Your task to perform on an android device: empty trash in google photos Image 0: 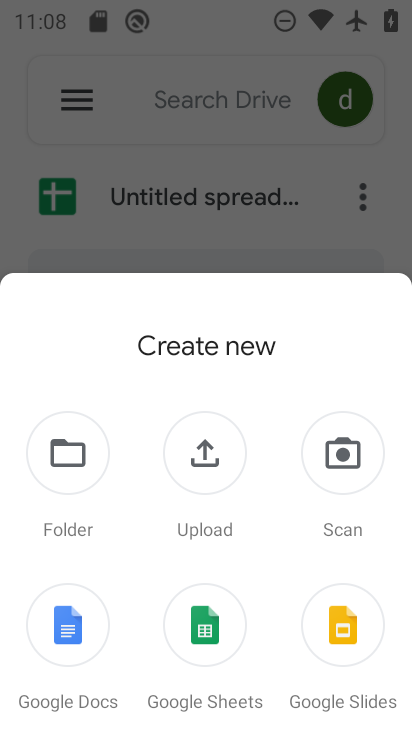
Step 0: press home button
Your task to perform on an android device: empty trash in google photos Image 1: 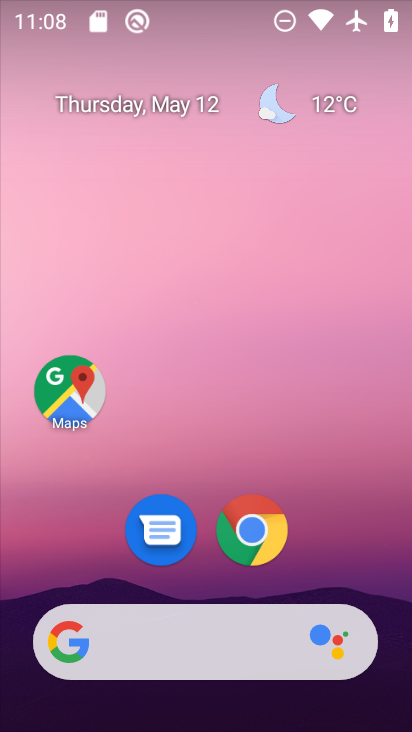
Step 1: drag from (204, 559) to (357, 165)
Your task to perform on an android device: empty trash in google photos Image 2: 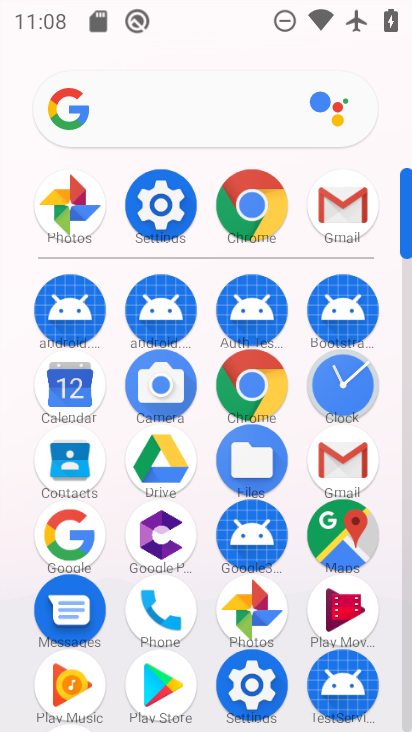
Step 2: click (254, 617)
Your task to perform on an android device: empty trash in google photos Image 3: 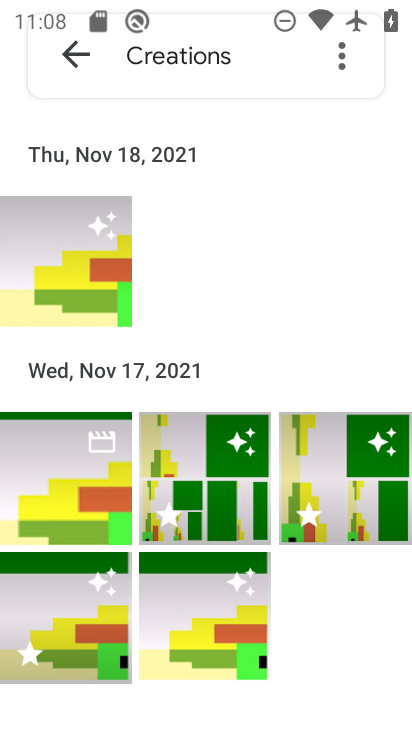
Step 3: click (75, 56)
Your task to perform on an android device: empty trash in google photos Image 4: 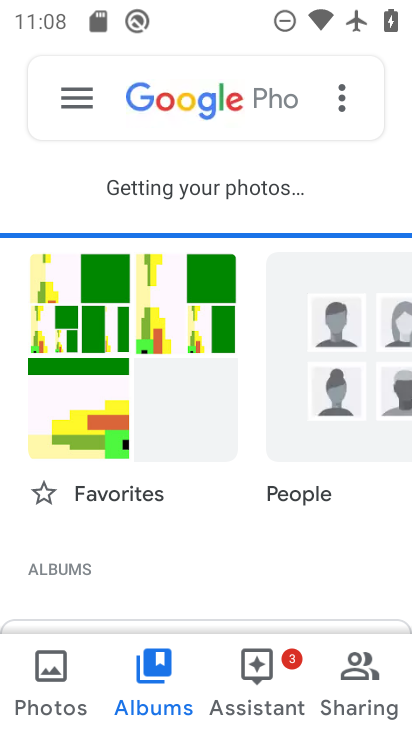
Step 4: click (88, 104)
Your task to perform on an android device: empty trash in google photos Image 5: 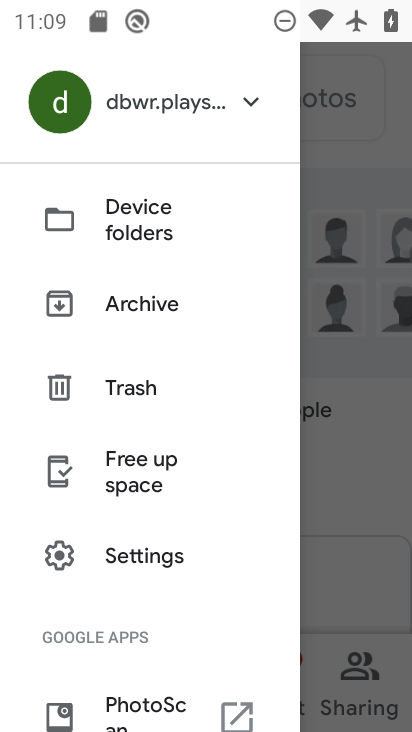
Step 5: click (134, 386)
Your task to perform on an android device: empty trash in google photos Image 6: 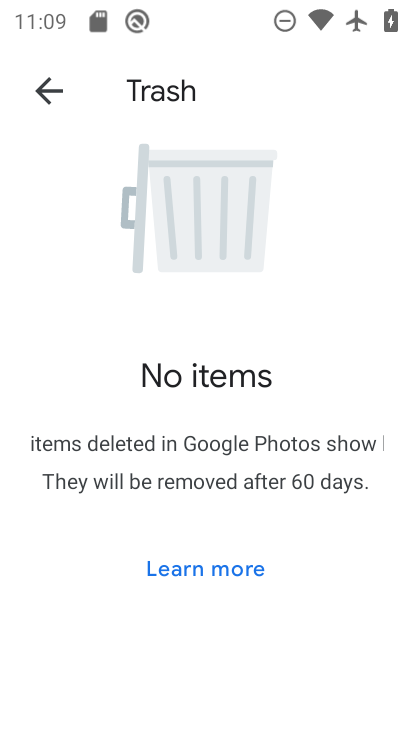
Step 6: task complete